Your task to perform on an android device: turn off airplane mode Image 0: 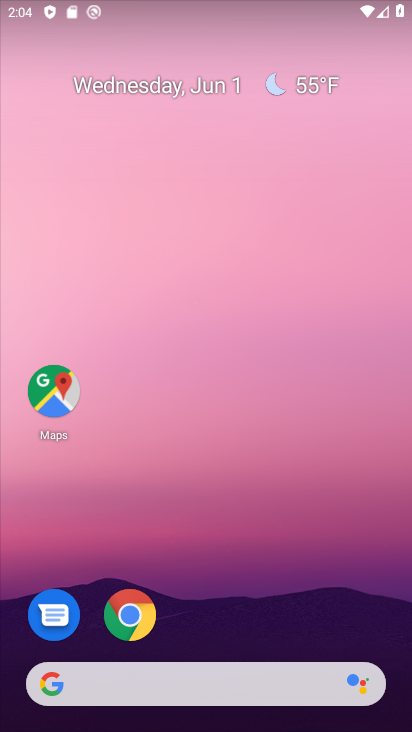
Step 0: drag from (173, 655) to (287, 119)
Your task to perform on an android device: turn off airplane mode Image 1: 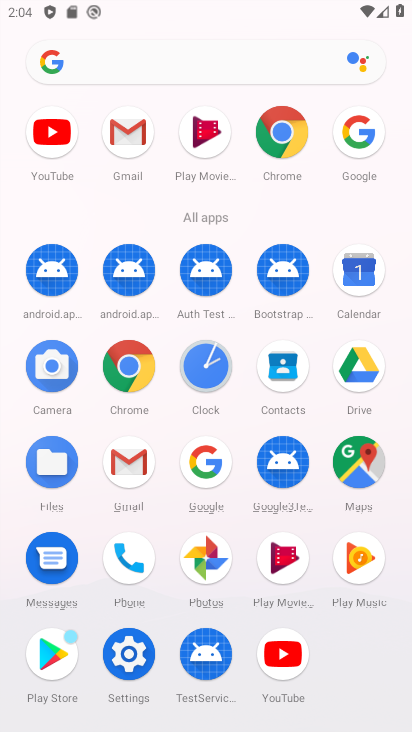
Step 1: click (134, 674)
Your task to perform on an android device: turn off airplane mode Image 2: 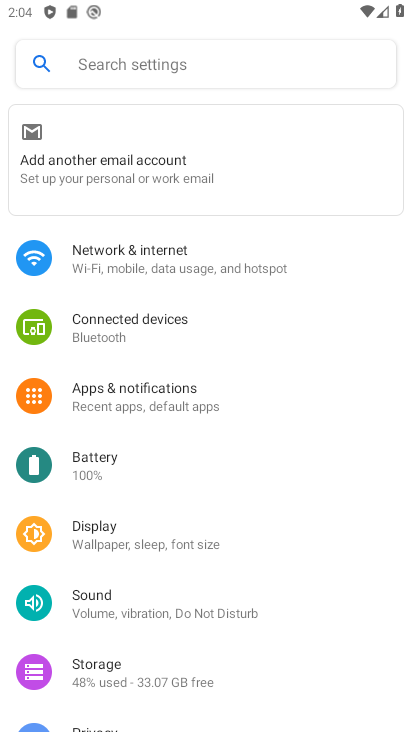
Step 2: click (251, 263)
Your task to perform on an android device: turn off airplane mode Image 3: 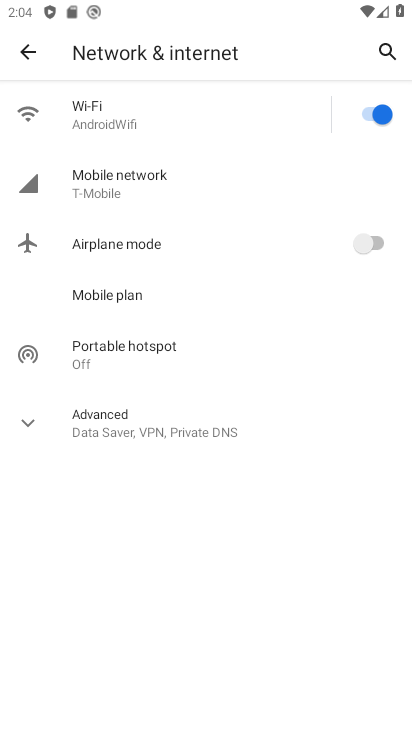
Step 3: task complete